Your task to perform on an android device: change notification settings in the gmail app Image 0: 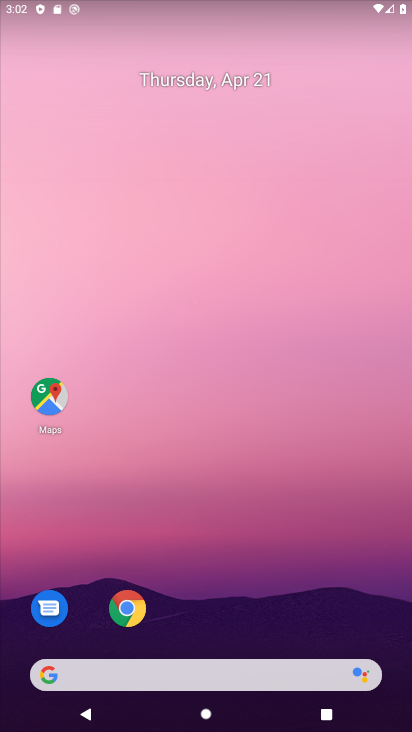
Step 0: click (281, 98)
Your task to perform on an android device: change notification settings in the gmail app Image 1: 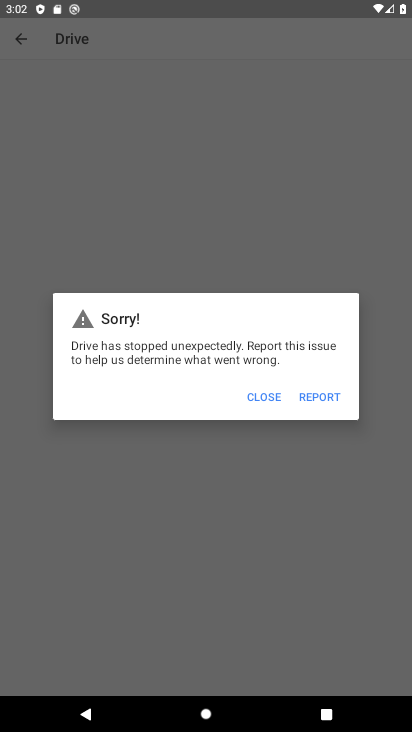
Step 1: press home button
Your task to perform on an android device: change notification settings in the gmail app Image 2: 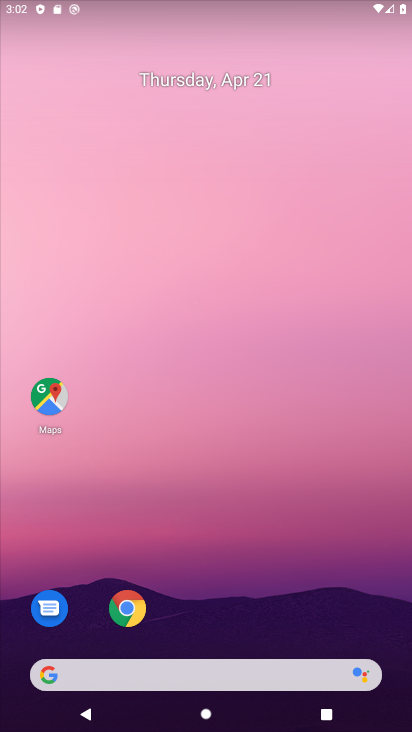
Step 2: drag from (246, 575) to (243, 87)
Your task to perform on an android device: change notification settings in the gmail app Image 3: 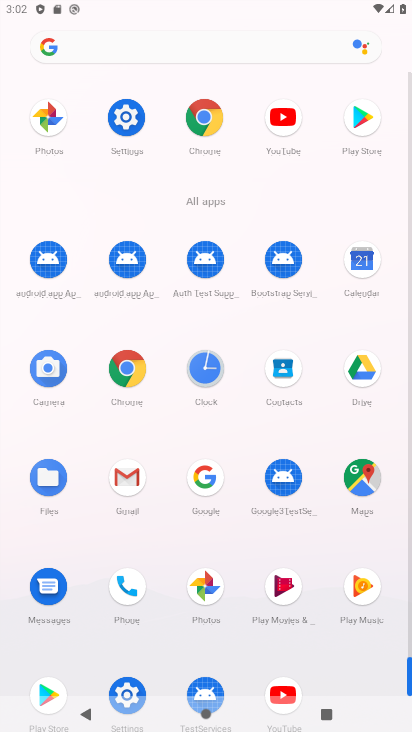
Step 3: click (197, 597)
Your task to perform on an android device: change notification settings in the gmail app Image 4: 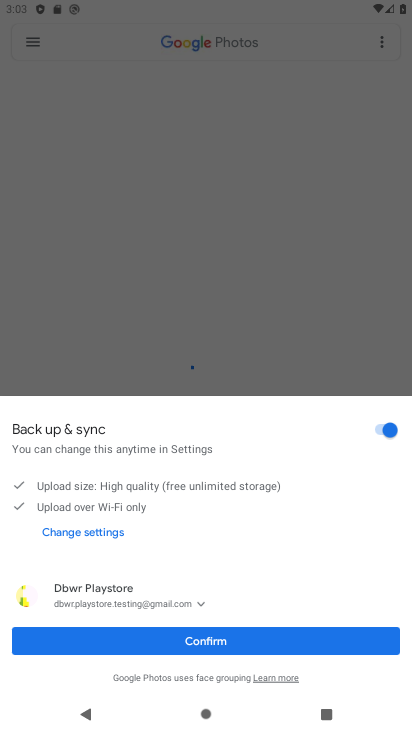
Step 4: click (35, 49)
Your task to perform on an android device: change notification settings in the gmail app Image 5: 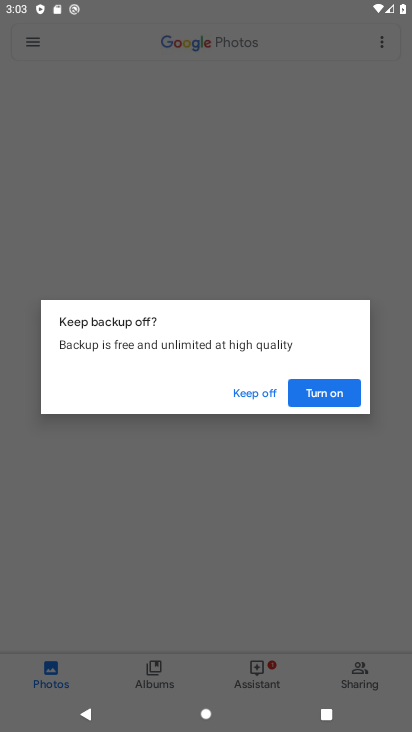
Step 5: click (311, 396)
Your task to perform on an android device: change notification settings in the gmail app Image 6: 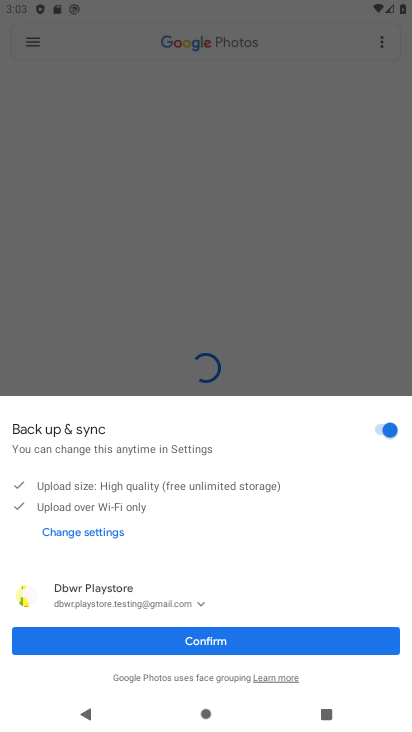
Step 6: click (218, 643)
Your task to perform on an android device: change notification settings in the gmail app Image 7: 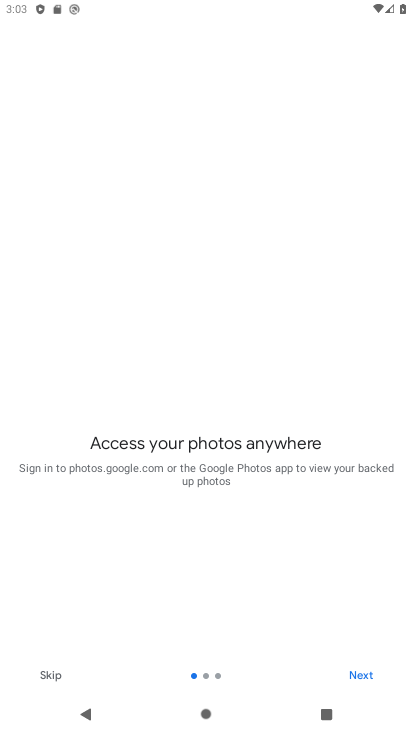
Step 7: click (362, 676)
Your task to perform on an android device: change notification settings in the gmail app Image 8: 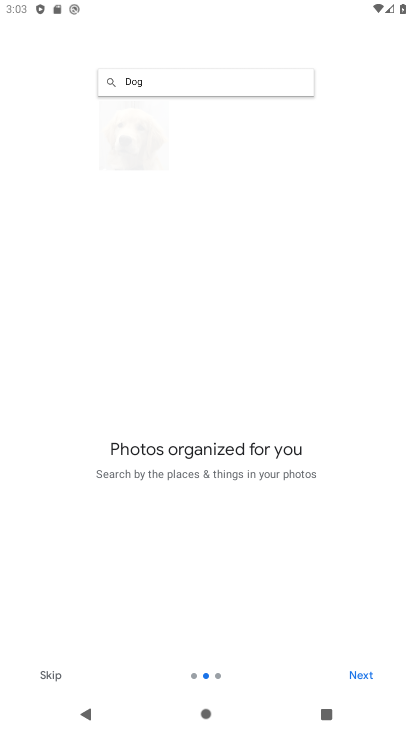
Step 8: click (365, 681)
Your task to perform on an android device: change notification settings in the gmail app Image 9: 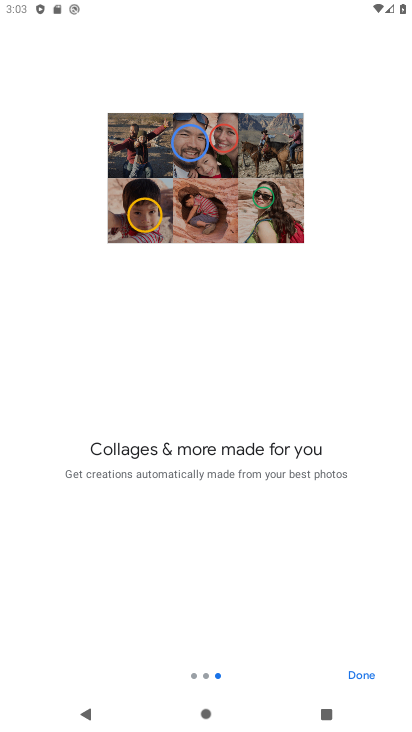
Step 9: click (365, 681)
Your task to perform on an android device: change notification settings in the gmail app Image 10: 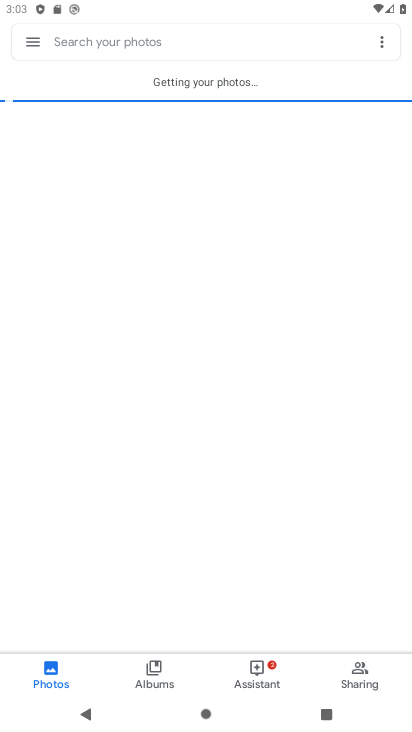
Step 10: press home button
Your task to perform on an android device: change notification settings in the gmail app Image 11: 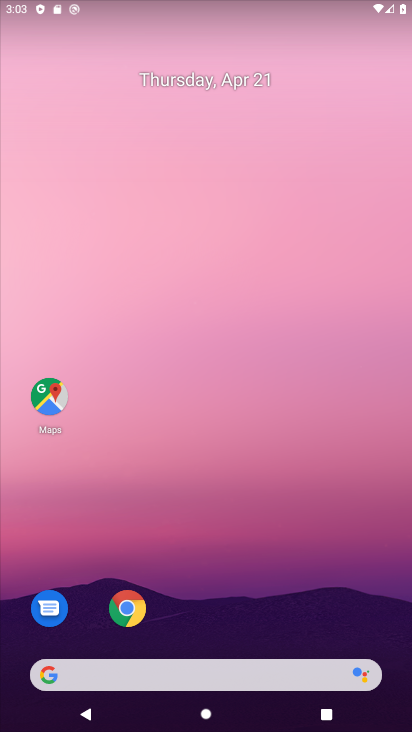
Step 11: drag from (255, 575) to (189, 135)
Your task to perform on an android device: change notification settings in the gmail app Image 12: 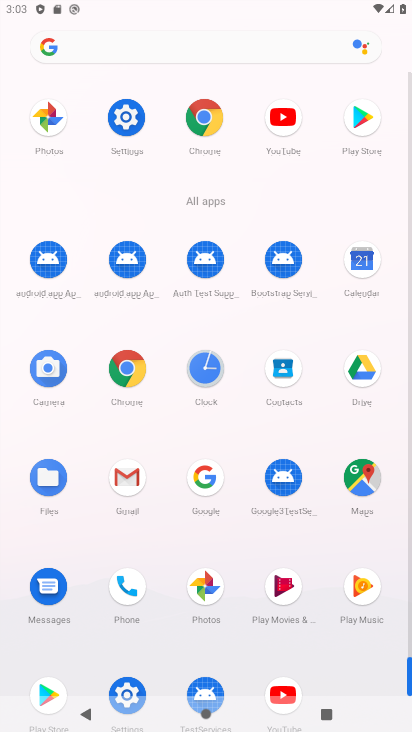
Step 12: click (125, 484)
Your task to perform on an android device: change notification settings in the gmail app Image 13: 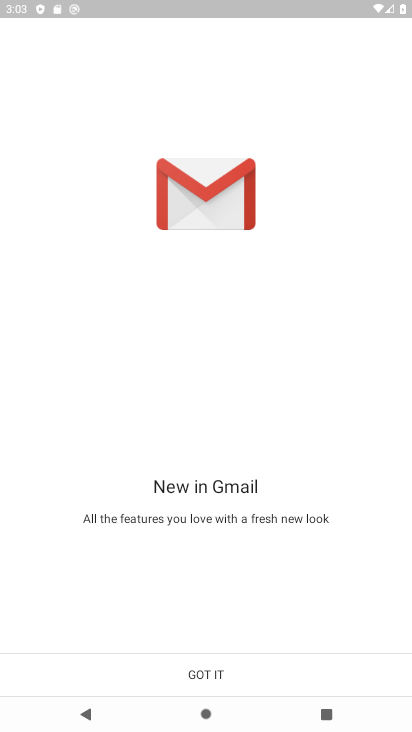
Step 13: click (209, 668)
Your task to perform on an android device: change notification settings in the gmail app Image 14: 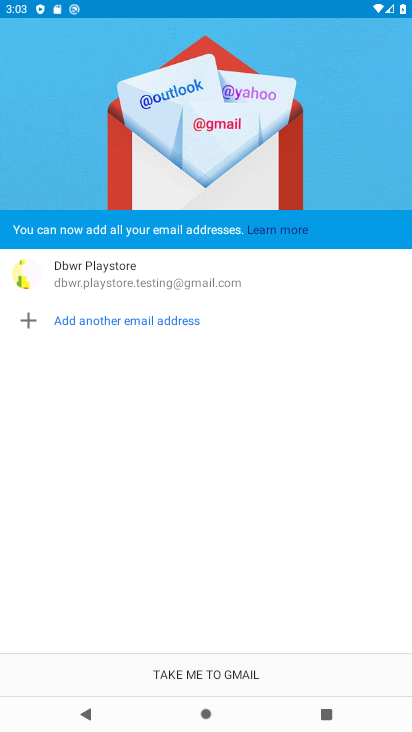
Step 14: click (199, 672)
Your task to perform on an android device: change notification settings in the gmail app Image 15: 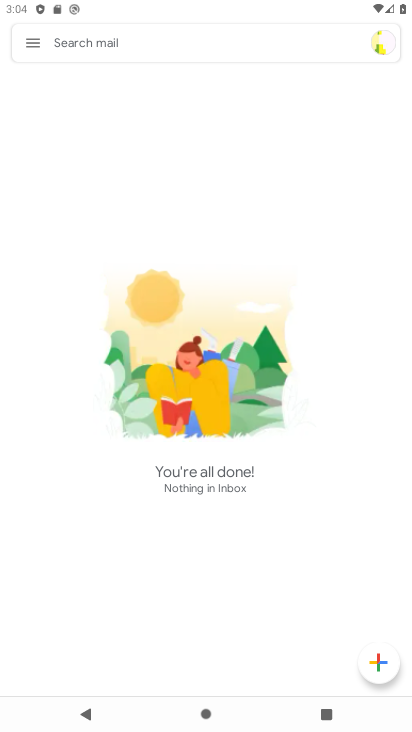
Step 15: click (140, 39)
Your task to perform on an android device: change notification settings in the gmail app Image 16: 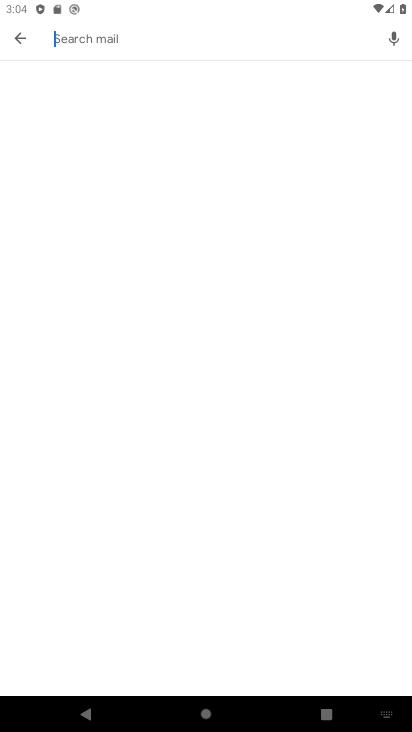
Step 16: click (24, 37)
Your task to perform on an android device: change notification settings in the gmail app Image 17: 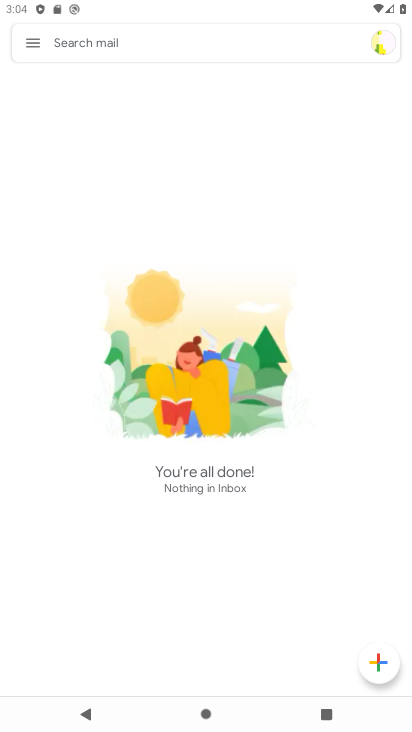
Step 17: click (31, 46)
Your task to perform on an android device: change notification settings in the gmail app Image 18: 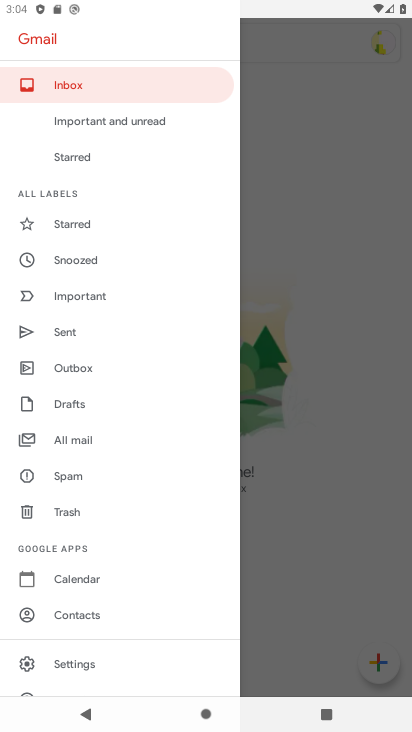
Step 18: drag from (118, 562) to (161, 260)
Your task to perform on an android device: change notification settings in the gmail app Image 19: 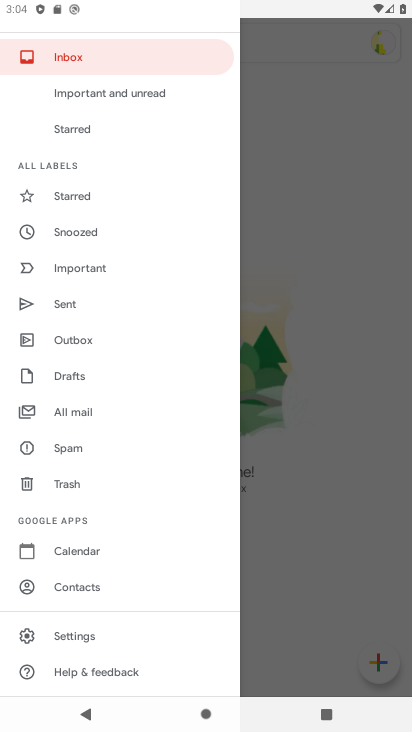
Step 19: click (84, 644)
Your task to perform on an android device: change notification settings in the gmail app Image 20: 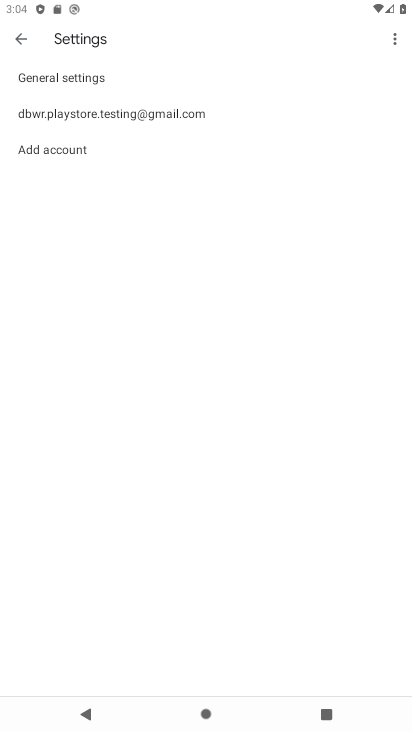
Step 20: click (127, 123)
Your task to perform on an android device: change notification settings in the gmail app Image 21: 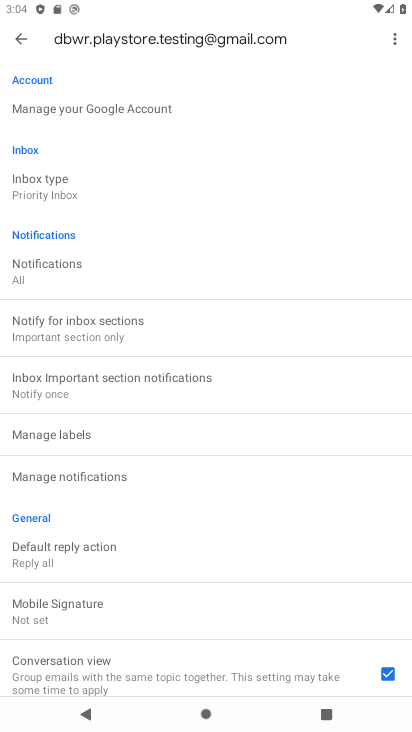
Step 21: click (50, 274)
Your task to perform on an android device: change notification settings in the gmail app Image 22: 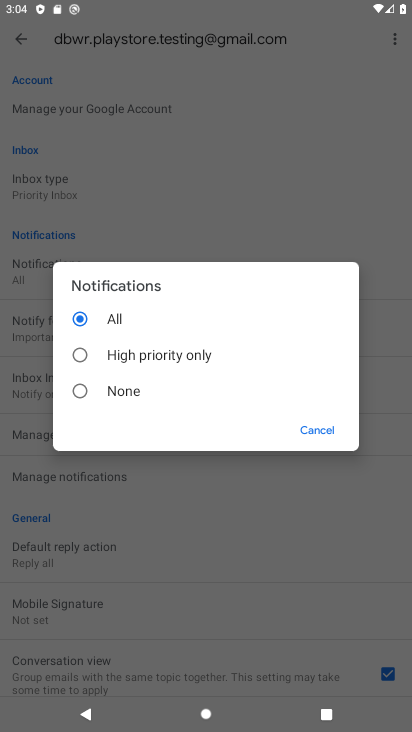
Step 22: click (83, 388)
Your task to perform on an android device: change notification settings in the gmail app Image 23: 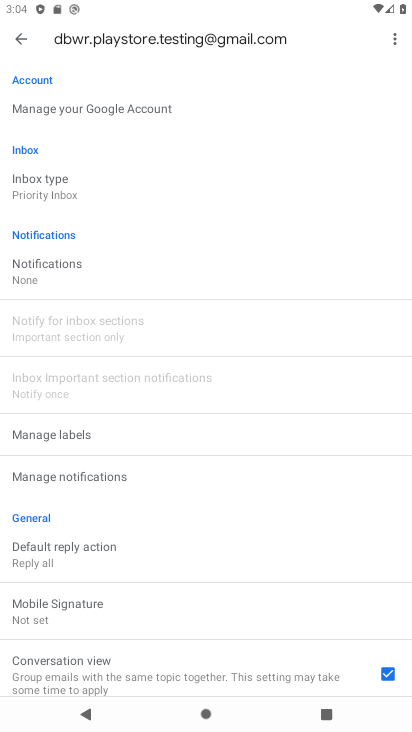
Step 23: task complete